Your task to perform on an android device: turn on the 24-hour format for clock Image 0: 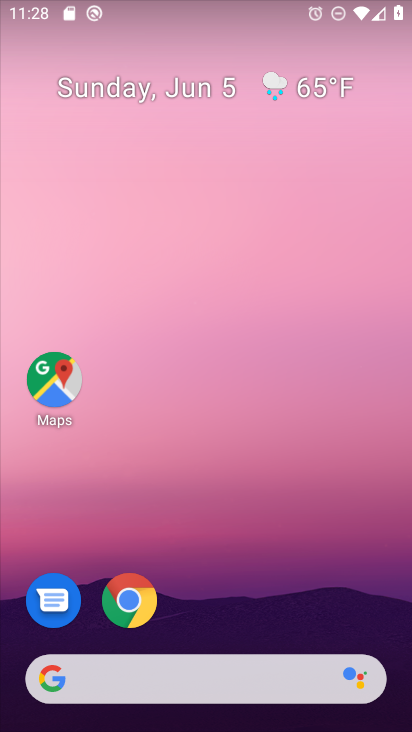
Step 0: drag from (359, 494) to (317, 205)
Your task to perform on an android device: turn on the 24-hour format for clock Image 1: 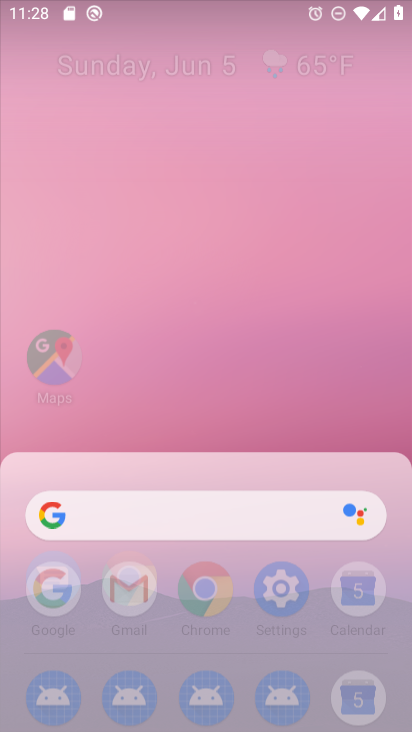
Step 1: click (273, 34)
Your task to perform on an android device: turn on the 24-hour format for clock Image 2: 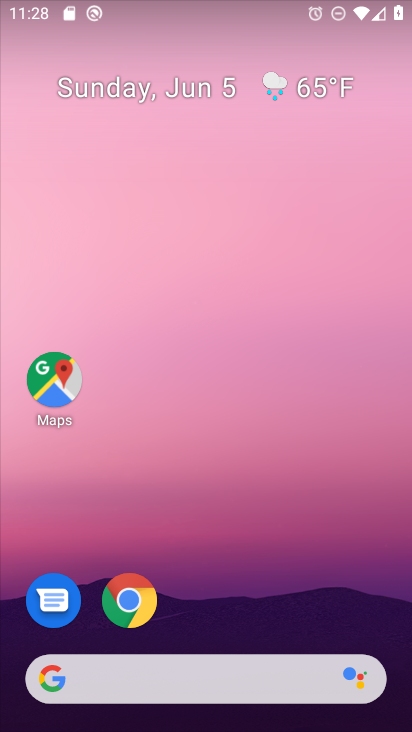
Step 2: click (364, 632)
Your task to perform on an android device: turn on the 24-hour format for clock Image 3: 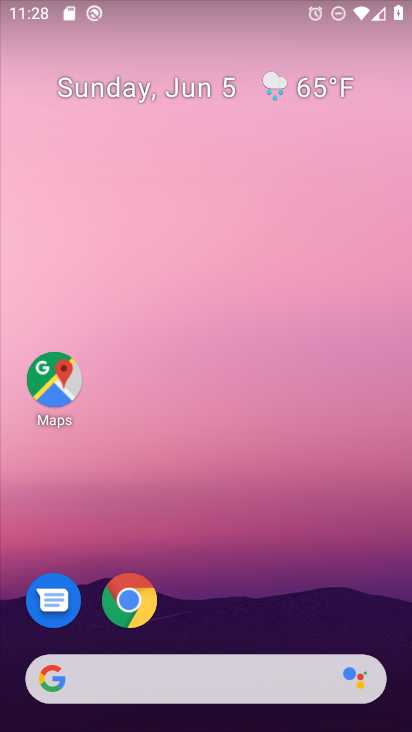
Step 3: drag from (319, 323) to (262, 74)
Your task to perform on an android device: turn on the 24-hour format for clock Image 4: 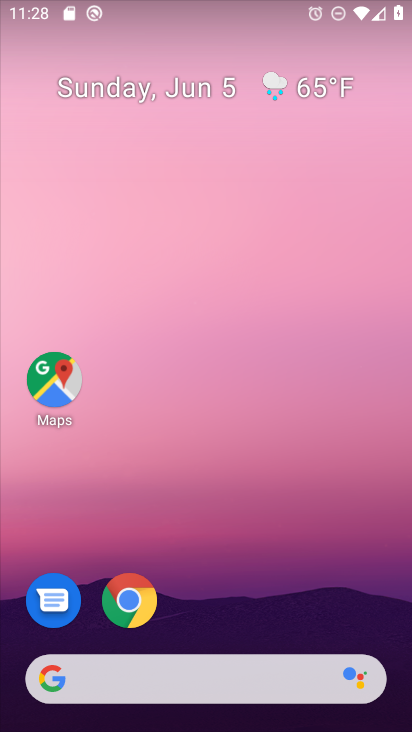
Step 4: drag from (339, 630) to (284, 37)
Your task to perform on an android device: turn on the 24-hour format for clock Image 5: 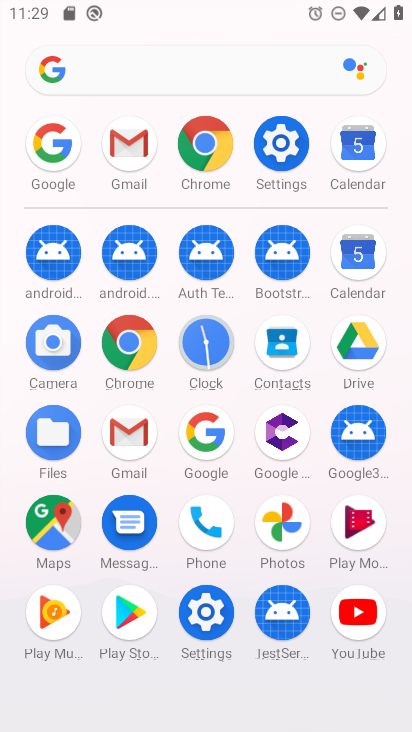
Step 5: click (220, 345)
Your task to perform on an android device: turn on the 24-hour format for clock Image 6: 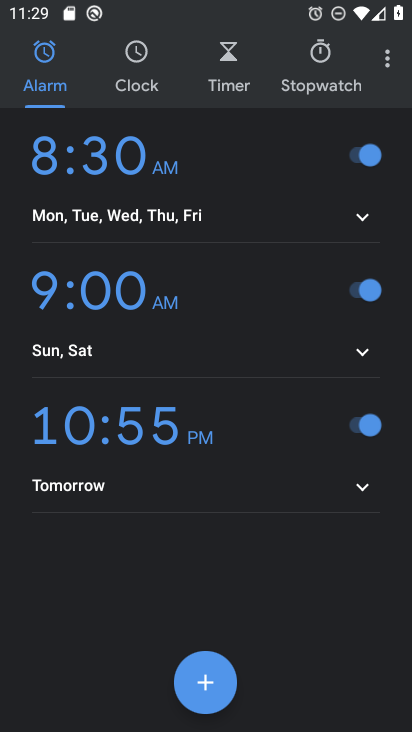
Step 6: click (391, 61)
Your task to perform on an android device: turn on the 24-hour format for clock Image 7: 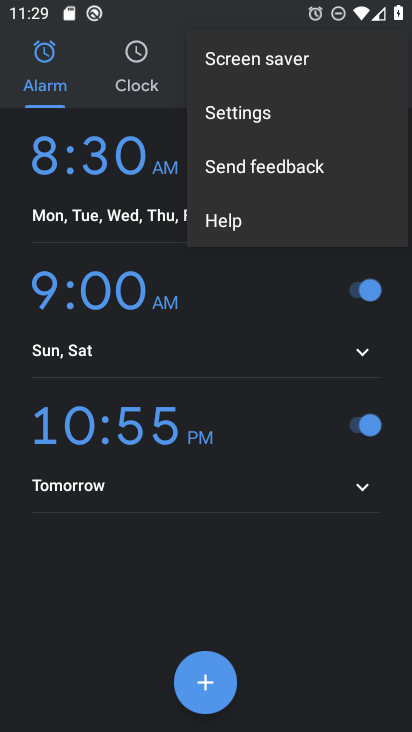
Step 7: click (239, 118)
Your task to perform on an android device: turn on the 24-hour format for clock Image 8: 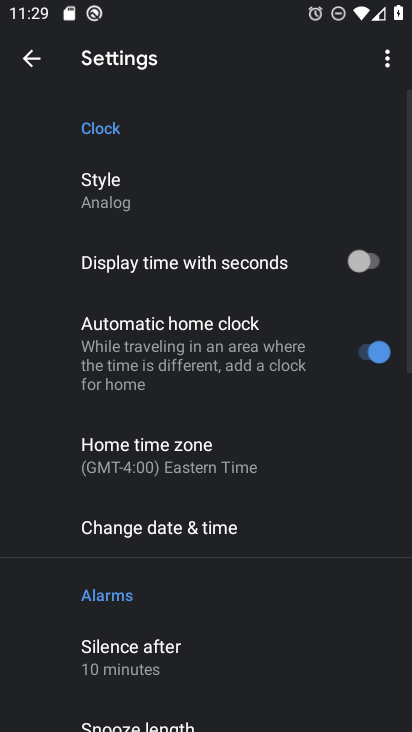
Step 8: click (205, 527)
Your task to perform on an android device: turn on the 24-hour format for clock Image 9: 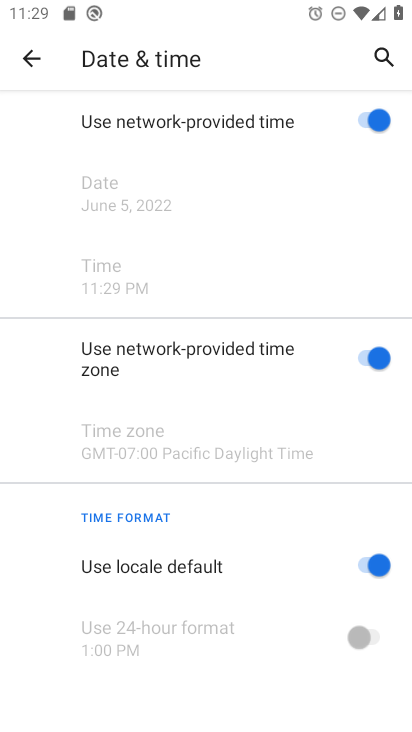
Step 9: task complete